Your task to perform on an android device: find snoozed emails in the gmail app Image 0: 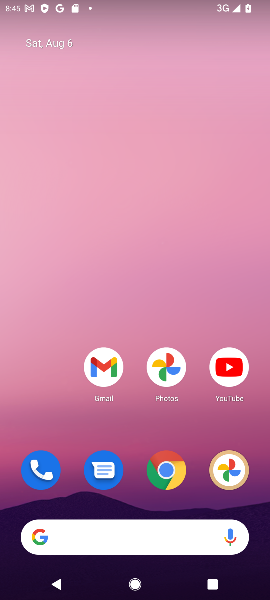
Step 0: drag from (126, 499) to (125, 285)
Your task to perform on an android device: find snoozed emails in the gmail app Image 1: 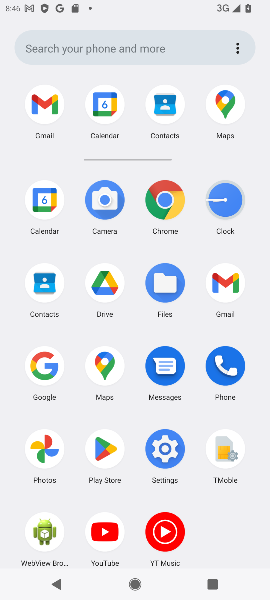
Step 1: click (226, 284)
Your task to perform on an android device: find snoozed emails in the gmail app Image 2: 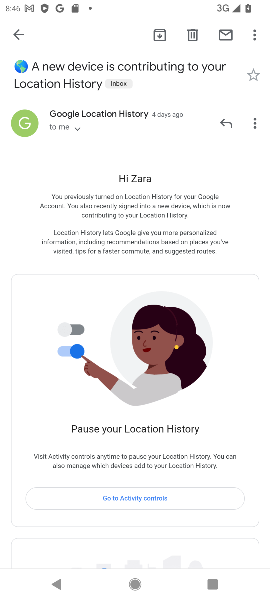
Step 2: click (17, 41)
Your task to perform on an android device: find snoozed emails in the gmail app Image 3: 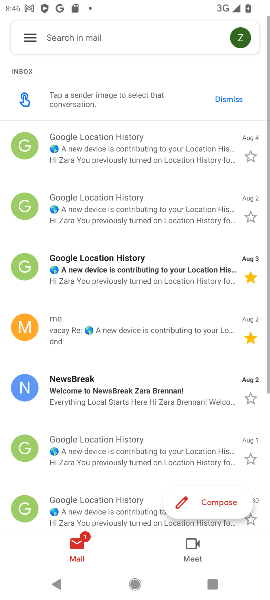
Step 3: click (35, 42)
Your task to perform on an android device: find snoozed emails in the gmail app Image 4: 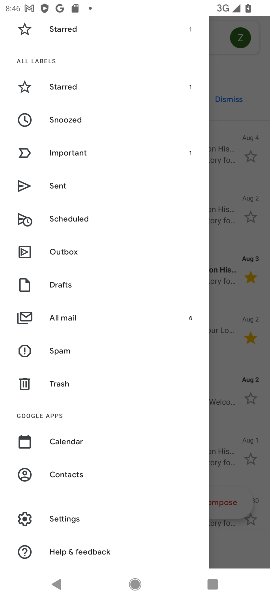
Step 4: click (79, 125)
Your task to perform on an android device: find snoozed emails in the gmail app Image 5: 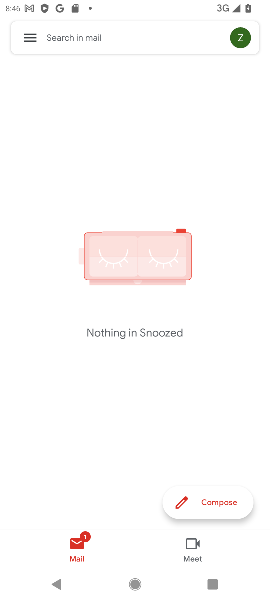
Step 5: task complete